Your task to perform on an android device: turn on airplane mode Image 0: 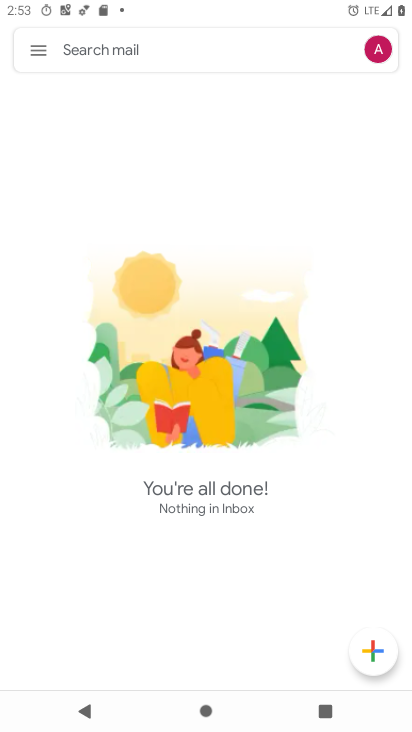
Step 0: press home button
Your task to perform on an android device: turn on airplane mode Image 1: 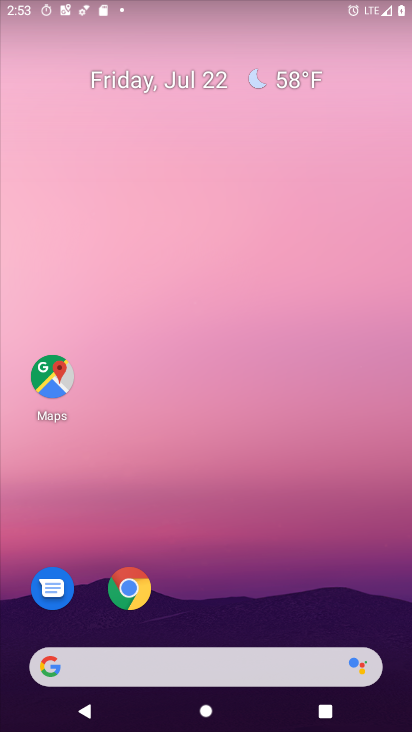
Step 1: drag from (278, 12) to (258, 461)
Your task to perform on an android device: turn on airplane mode Image 2: 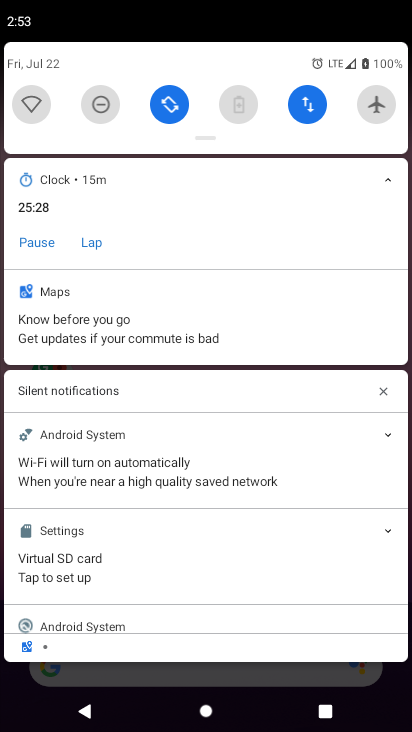
Step 2: click (364, 96)
Your task to perform on an android device: turn on airplane mode Image 3: 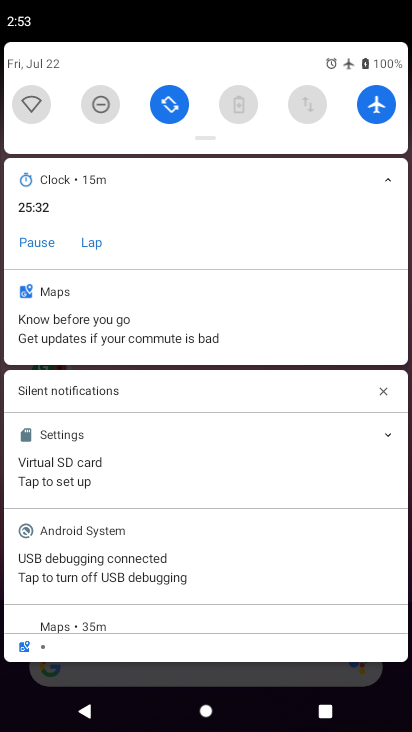
Step 3: task complete